Your task to perform on an android device: What's the weather like in Delhi? Image 0: 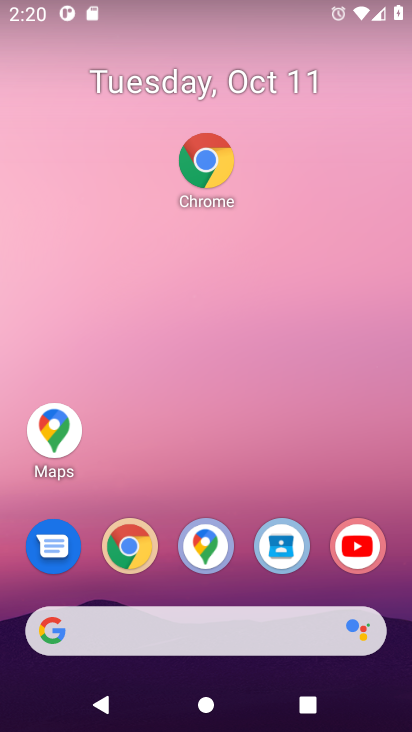
Step 0: click (139, 558)
Your task to perform on an android device: What's the weather like in Delhi? Image 1: 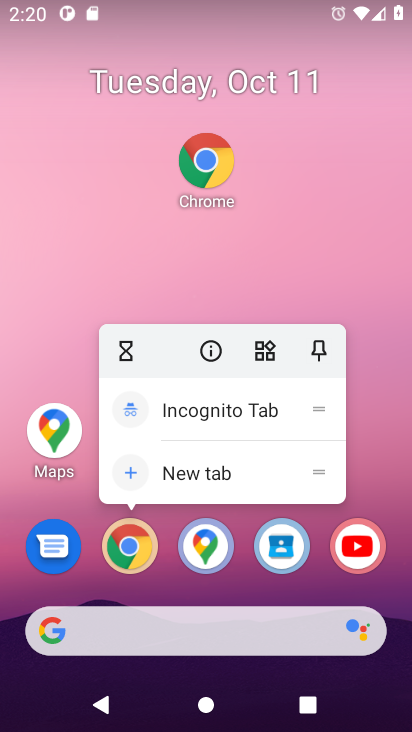
Step 1: click (133, 563)
Your task to perform on an android device: What's the weather like in Delhi? Image 2: 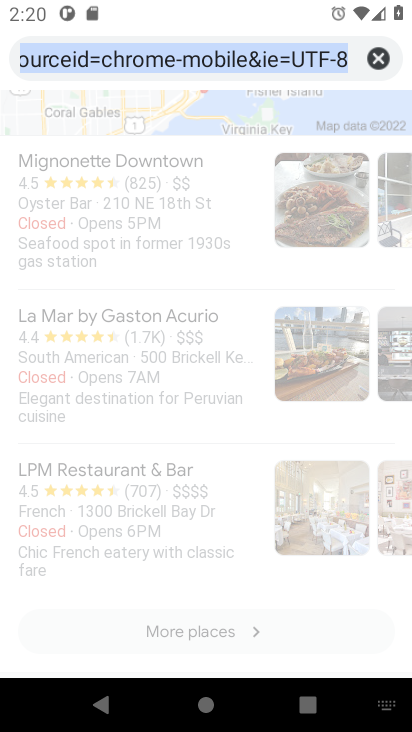
Step 2: type "weather like in Delhi"
Your task to perform on an android device: What's the weather like in Delhi? Image 3: 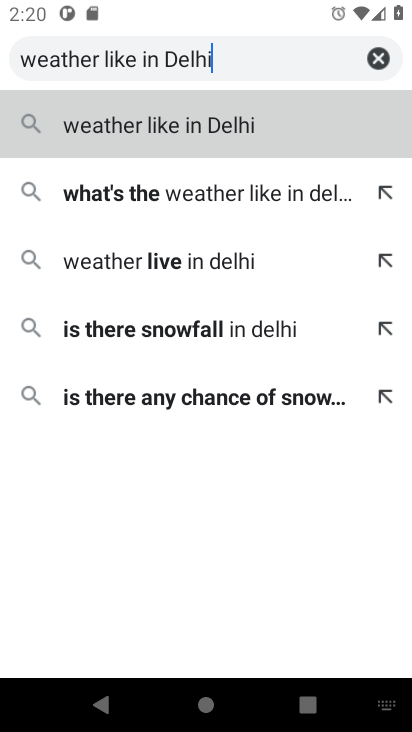
Step 3: press enter
Your task to perform on an android device: What's the weather like in Delhi? Image 4: 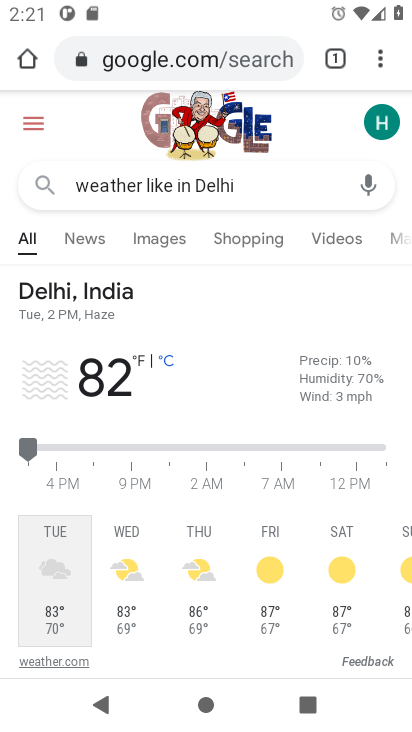
Step 4: drag from (294, 346) to (295, 121)
Your task to perform on an android device: What's the weather like in Delhi? Image 5: 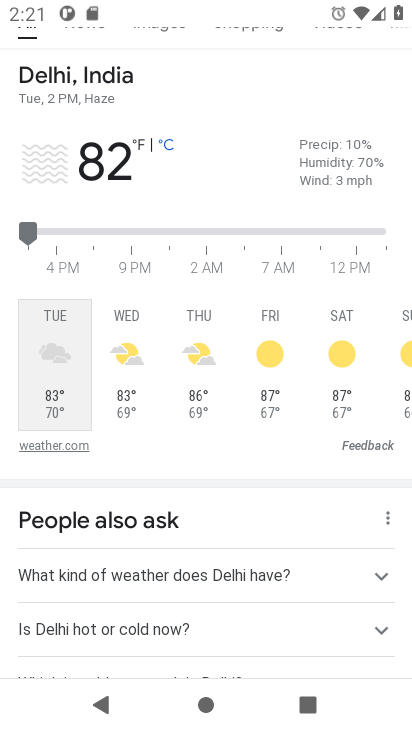
Step 5: drag from (283, 506) to (305, 76)
Your task to perform on an android device: What's the weather like in Delhi? Image 6: 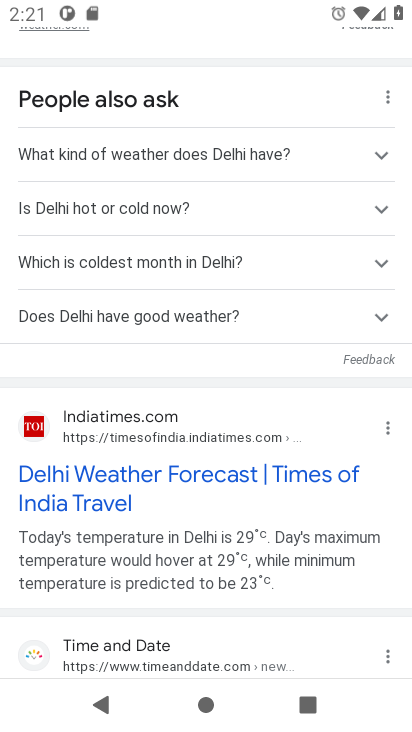
Step 6: drag from (271, 268) to (275, 479)
Your task to perform on an android device: What's the weather like in Delhi? Image 7: 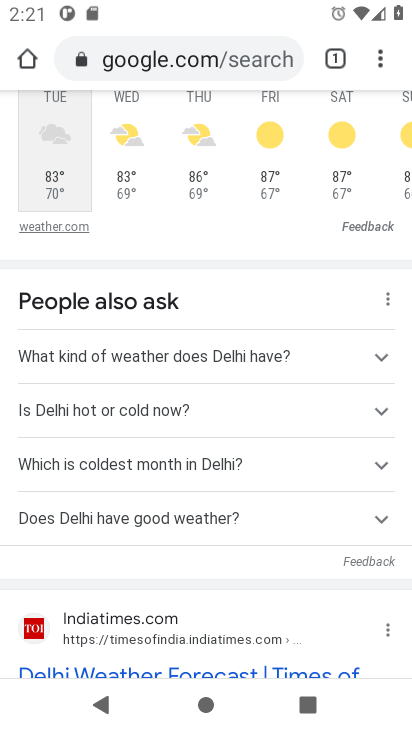
Step 7: drag from (291, 247) to (308, 606)
Your task to perform on an android device: What's the weather like in Delhi? Image 8: 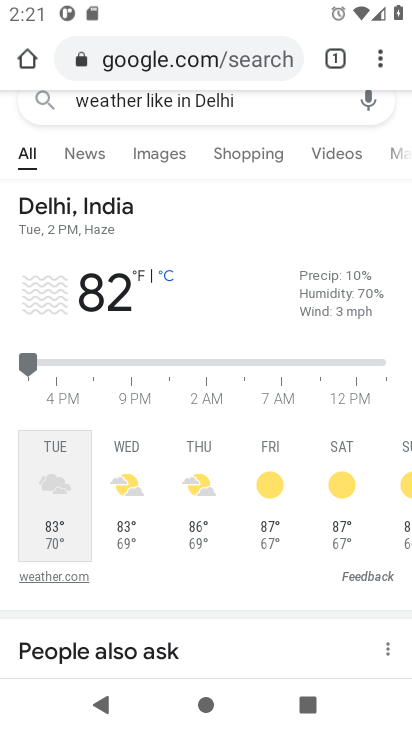
Step 8: drag from (304, 266) to (294, 469)
Your task to perform on an android device: What's the weather like in Delhi? Image 9: 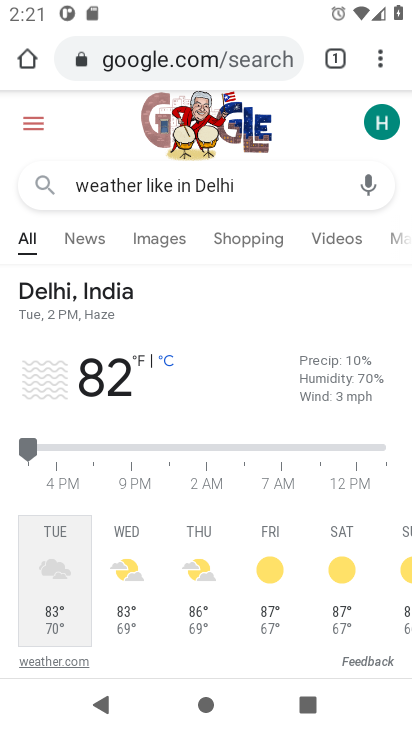
Step 9: drag from (305, 505) to (320, 425)
Your task to perform on an android device: What's the weather like in Delhi? Image 10: 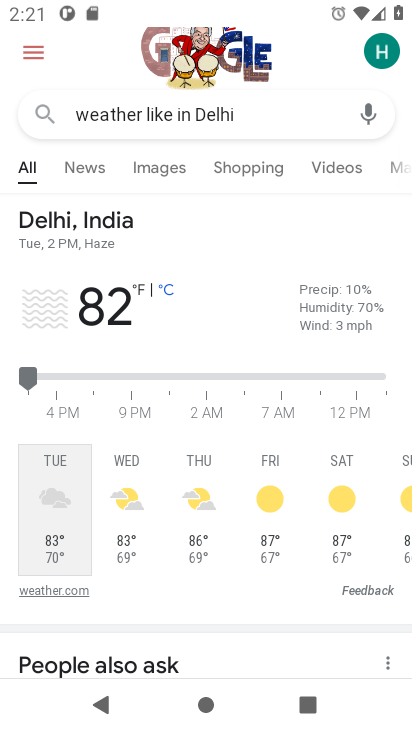
Step 10: click (161, 288)
Your task to perform on an android device: What's the weather like in Delhi? Image 11: 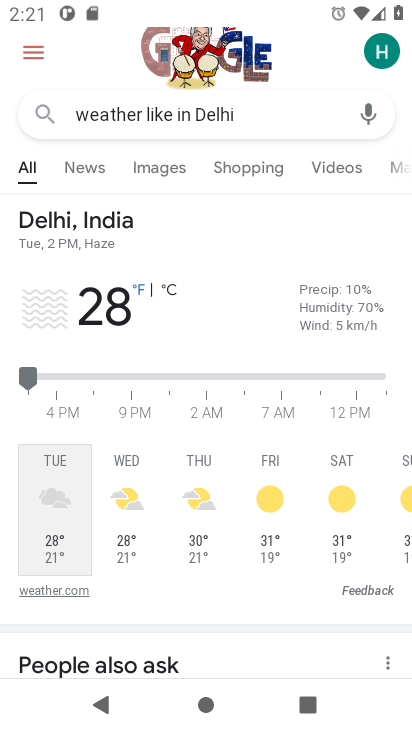
Step 11: task complete